Your task to perform on an android device: uninstall "Google Docs" Image 0: 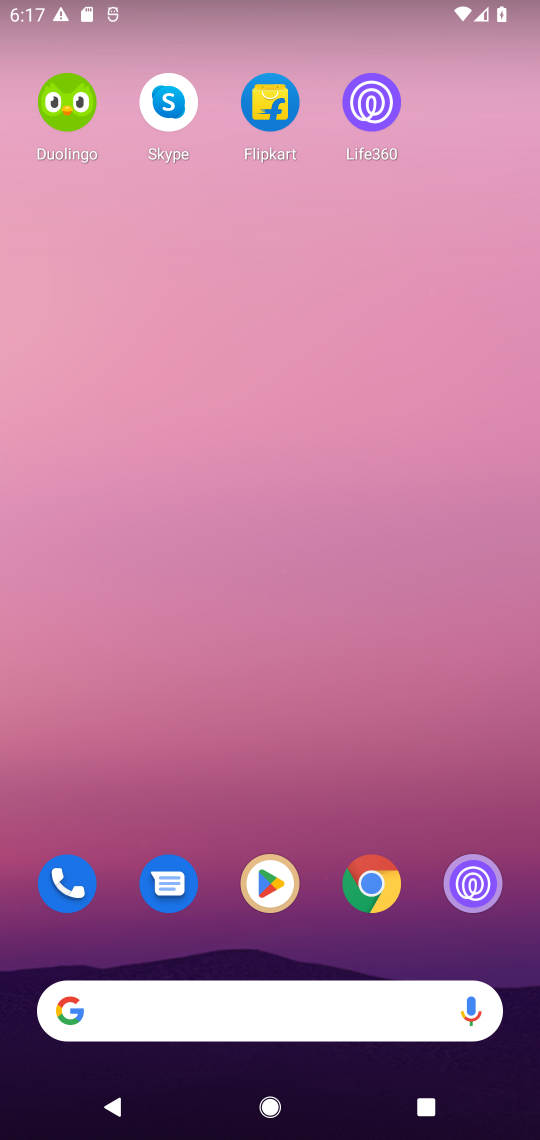
Step 0: drag from (245, 865) to (199, 119)
Your task to perform on an android device: uninstall "Google Docs" Image 1: 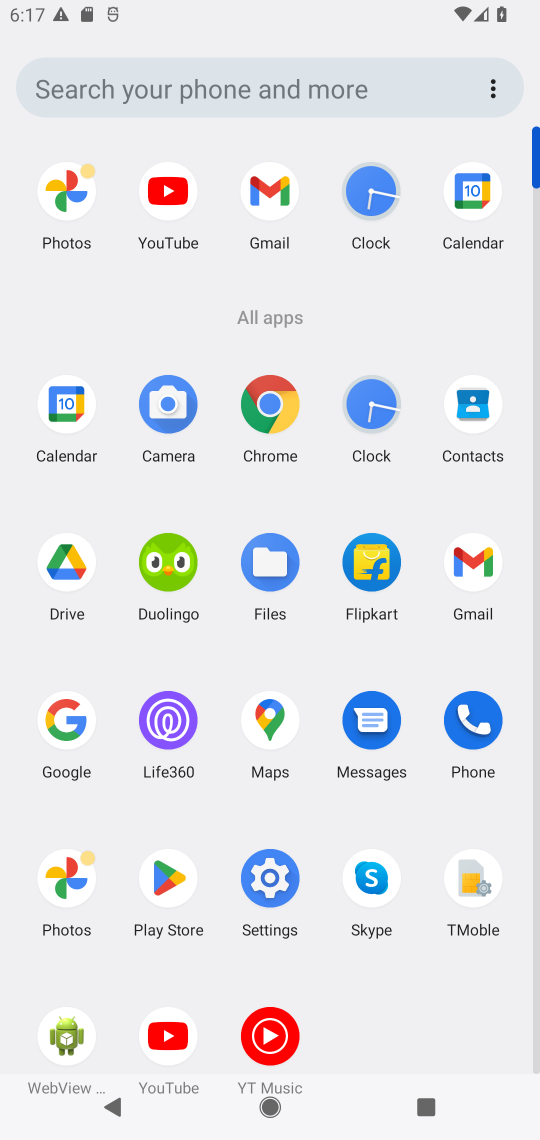
Step 1: click (158, 881)
Your task to perform on an android device: uninstall "Google Docs" Image 2: 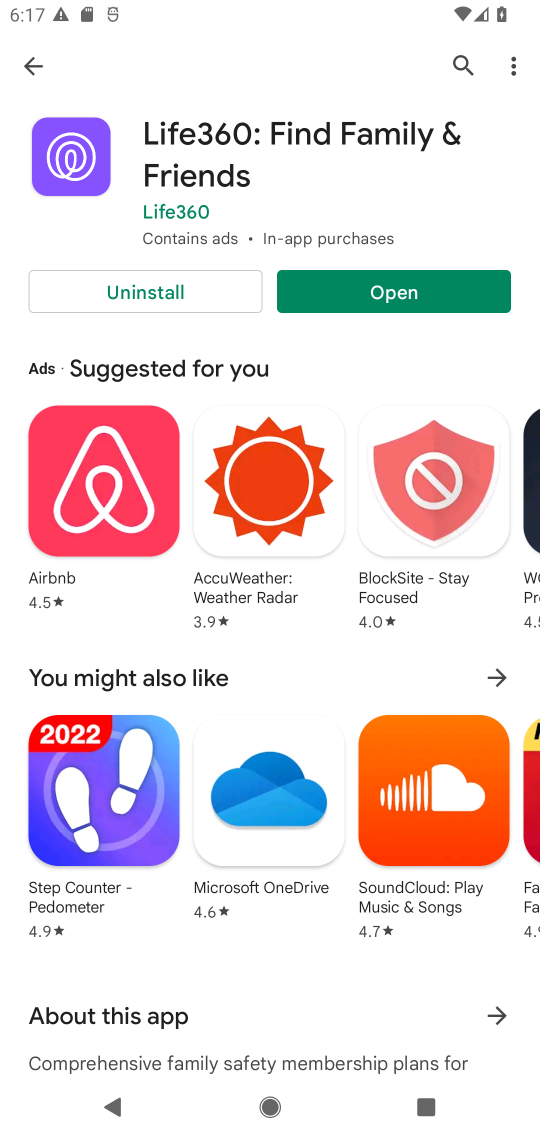
Step 2: click (459, 67)
Your task to perform on an android device: uninstall "Google Docs" Image 3: 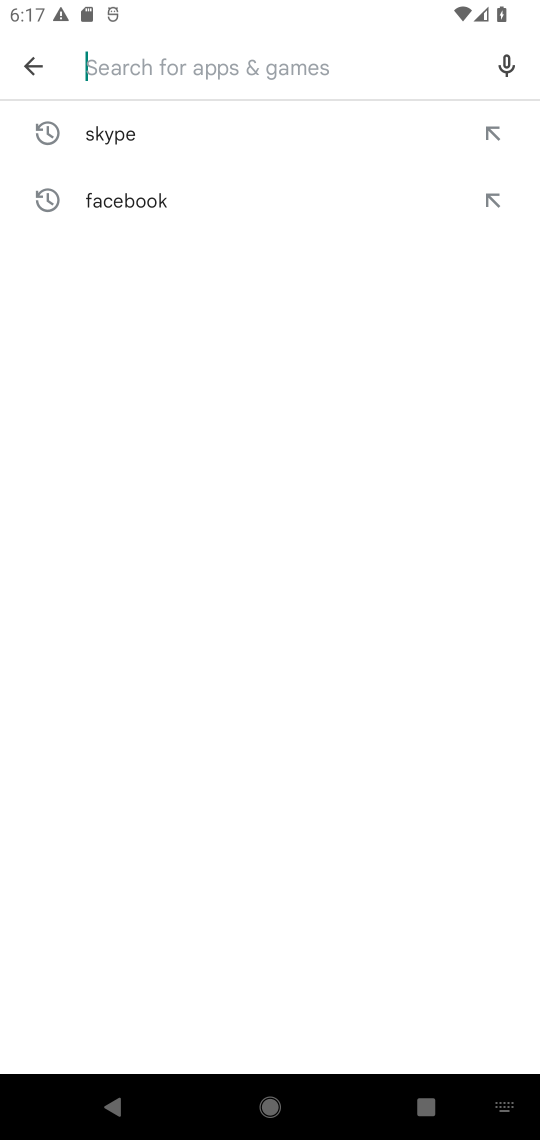
Step 3: type "Google Docs"
Your task to perform on an android device: uninstall "Google Docs" Image 4: 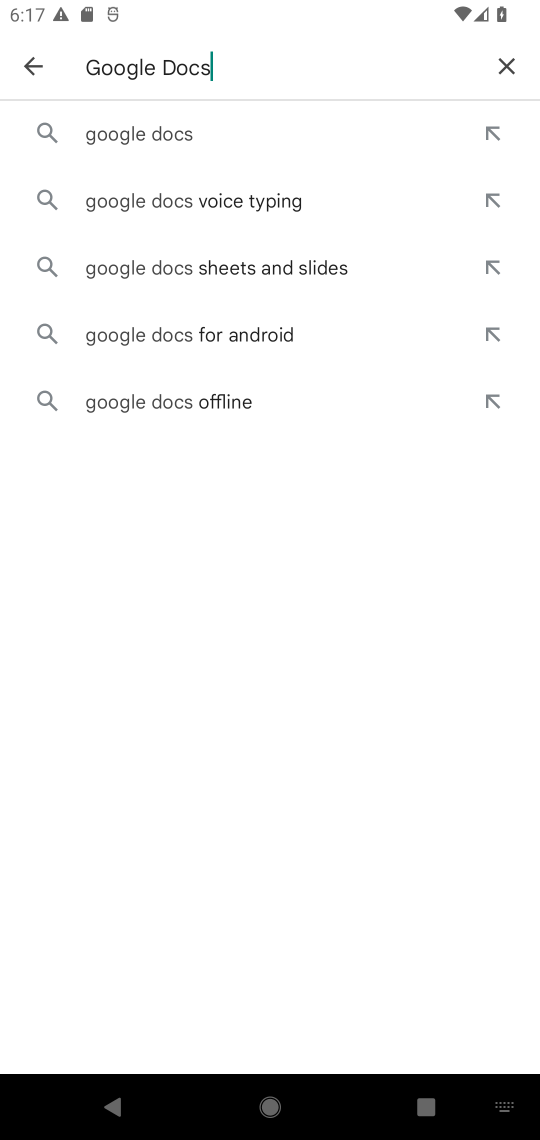
Step 4: click (176, 127)
Your task to perform on an android device: uninstall "Google Docs" Image 5: 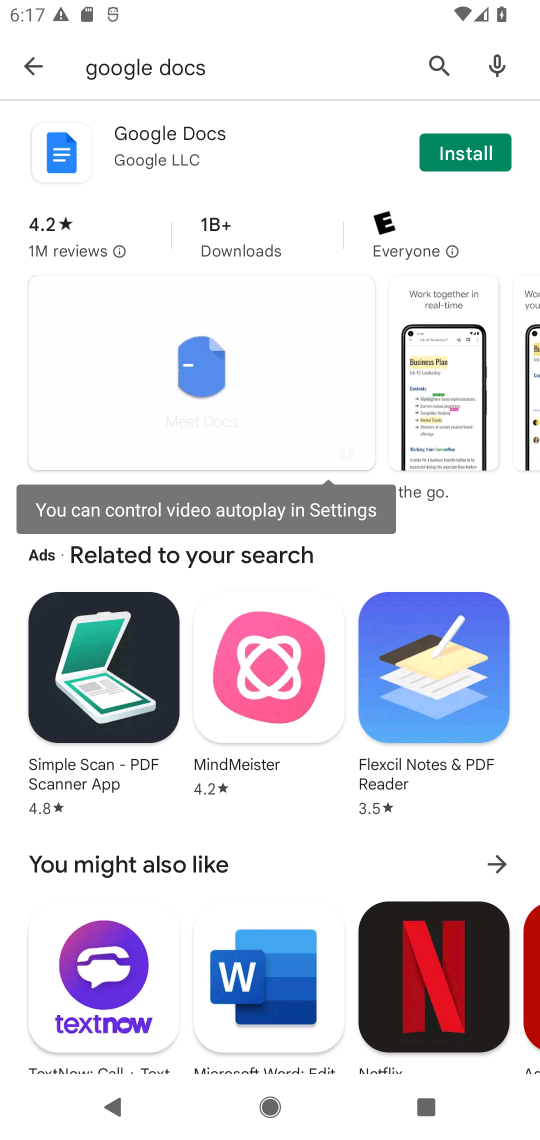
Step 5: click (150, 134)
Your task to perform on an android device: uninstall "Google Docs" Image 6: 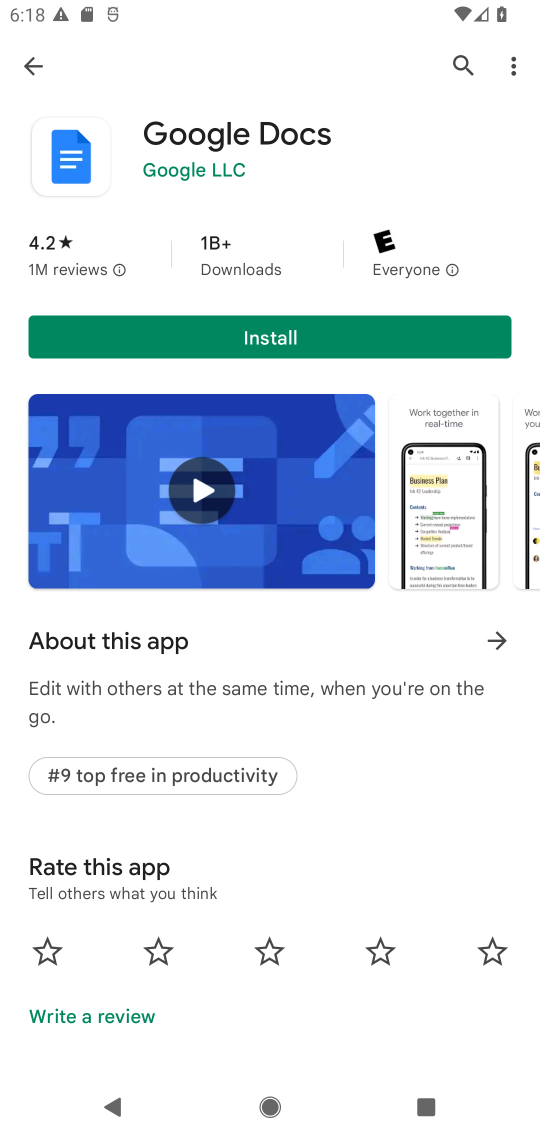
Step 6: task complete